Your task to perform on an android device: turn off priority inbox in the gmail app Image 0: 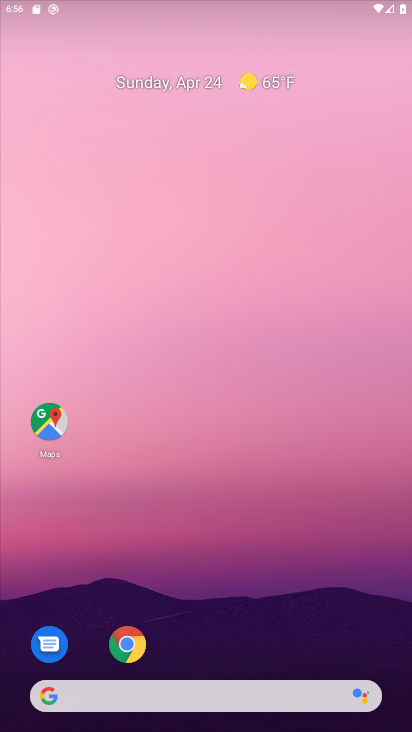
Step 0: drag from (215, 662) to (201, 100)
Your task to perform on an android device: turn off priority inbox in the gmail app Image 1: 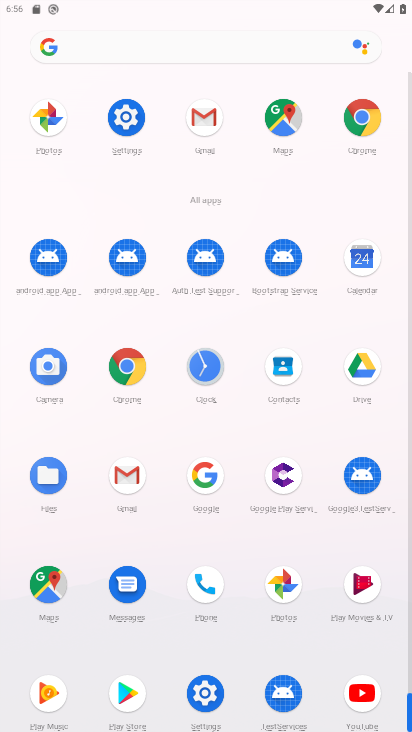
Step 1: click (127, 466)
Your task to perform on an android device: turn off priority inbox in the gmail app Image 2: 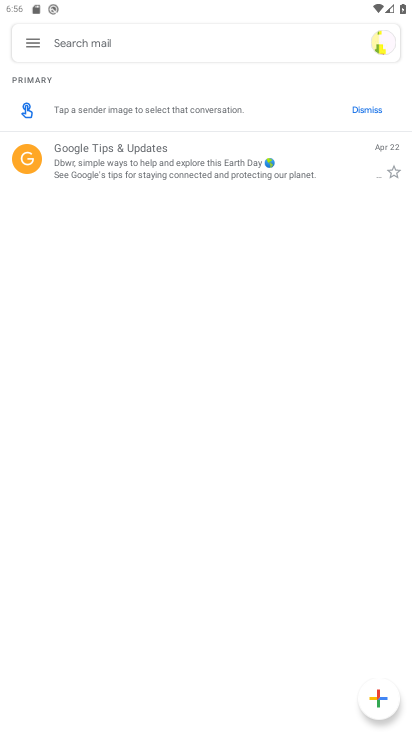
Step 2: click (28, 37)
Your task to perform on an android device: turn off priority inbox in the gmail app Image 3: 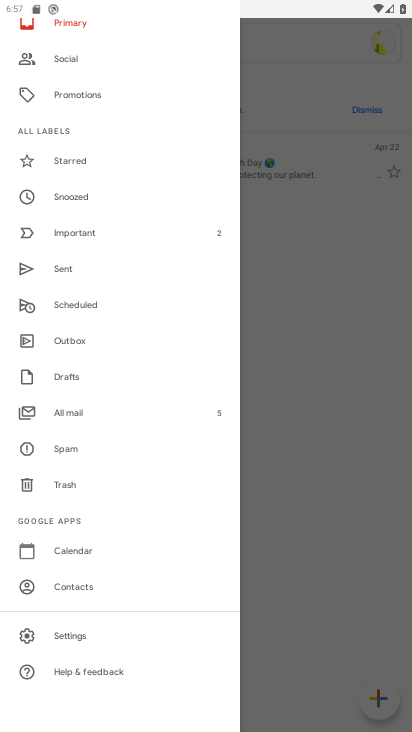
Step 3: click (91, 628)
Your task to perform on an android device: turn off priority inbox in the gmail app Image 4: 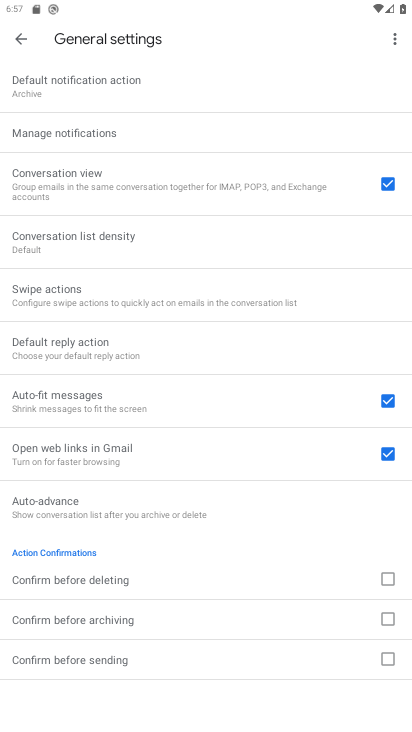
Step 4: click (23, 42)
Your task to perform on an android device: turn off priority inbox in the gmail app Image 5: 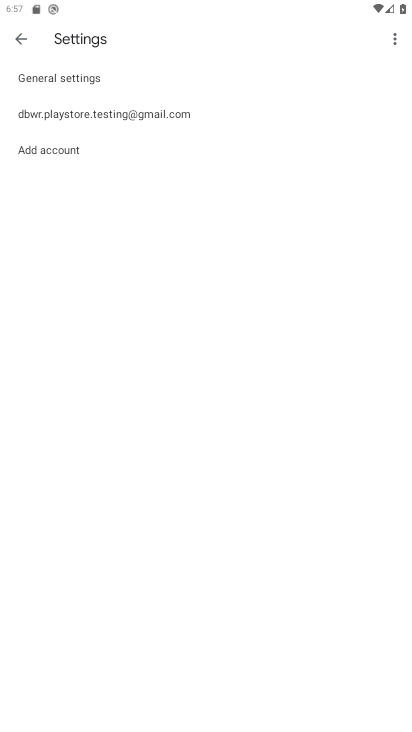
Step 5: click (137, 107)
Your task to perform on an android device: turn off priority inbox in the gmail app Image 6: 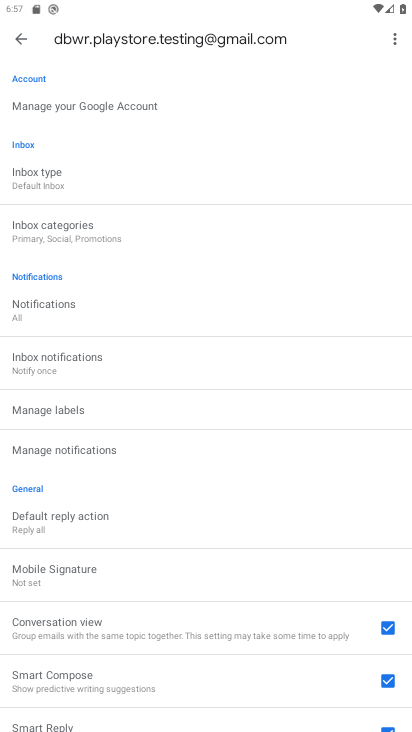
Step 6: click (78, 184)
Your task to perform on an android device: turn off priority inbox in the gmail app Image 7: 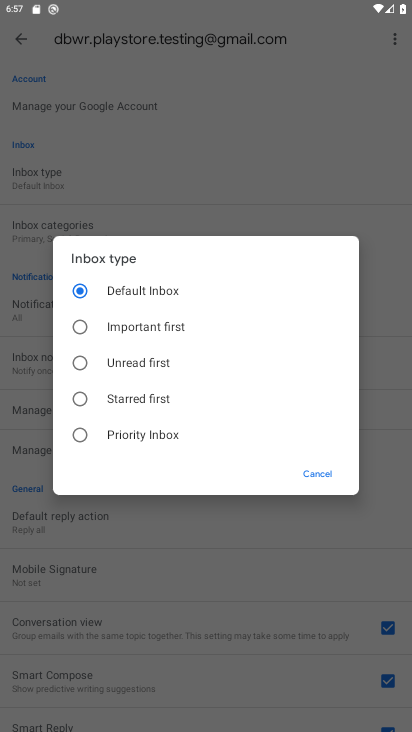
Step 7: click (79, 431)
Your task to perform on an android device: turn off priority inbox in the gmail app Image 8: 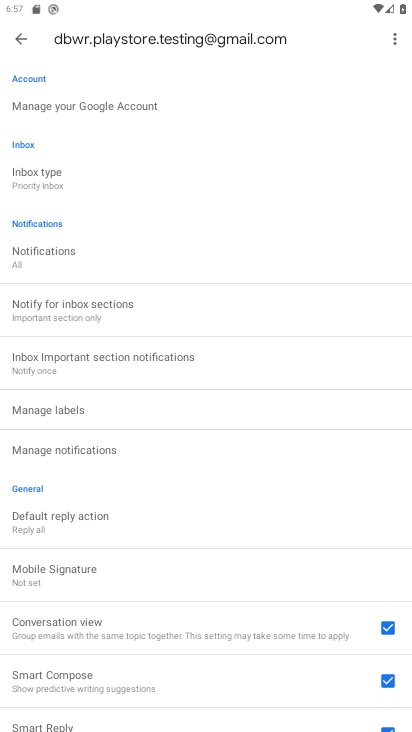
Step 8: task complete